Your task to perform on an android device: delete a single message in the gmail app Image 0: 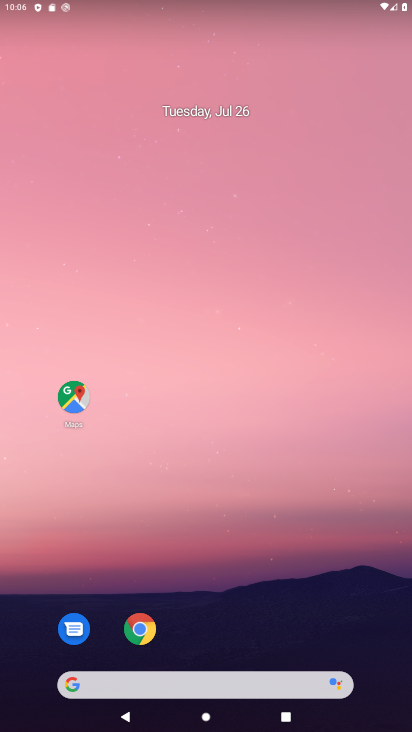
Step 0: drag from (209, 593) to (215, 35)
Your task to perform on an android device: delete a single message in the gmail app Image 1: 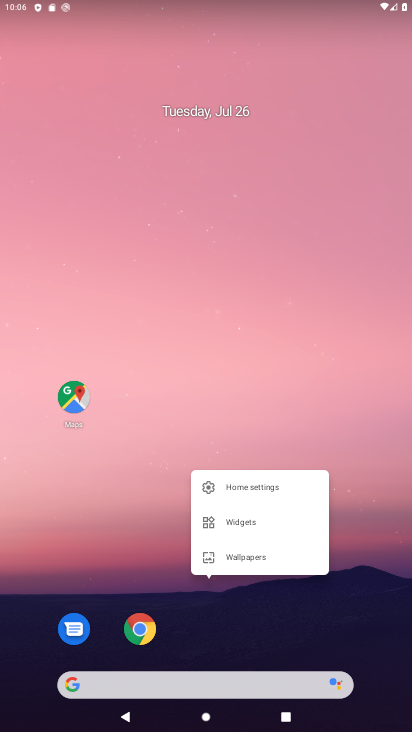
Step 1: click (276, 249)
Your task to perform on an android device: delete a single message in the gmail app Image 2: 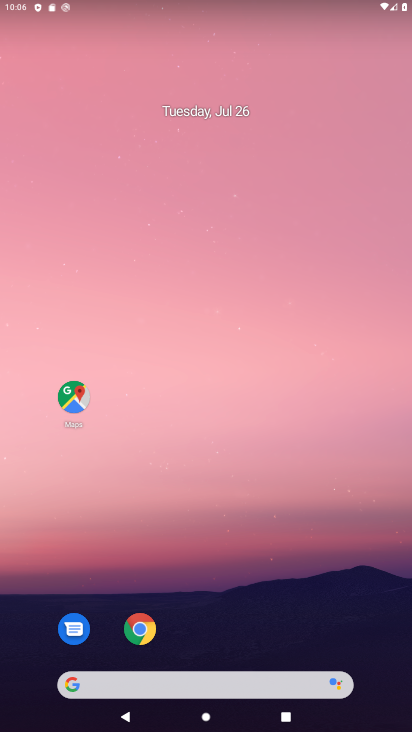
Step 2: drag from (265, 633) to (237, 121)
Your task to perform on an android device: delete a single message in the gmail app Image 3: 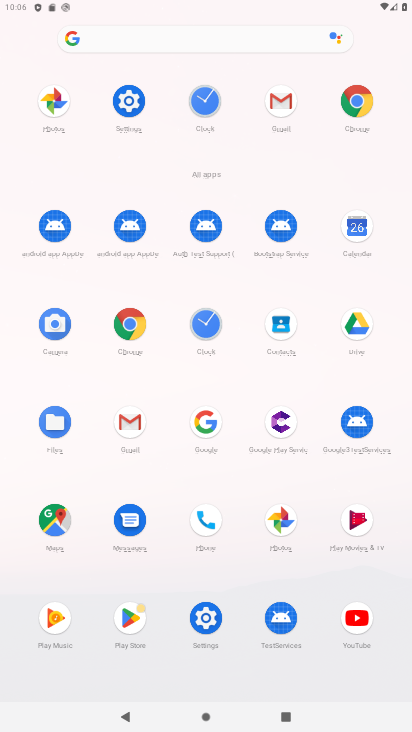
Step 3: click (116, 114)
Your task to perform on an android device: delete a single message in the gmail app Image 4: 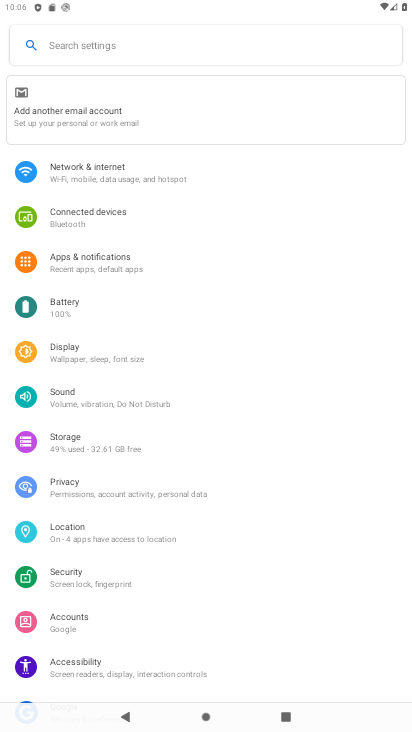
Step 4: task complete